Your task to perform on an android device: Check the weather Image 0: 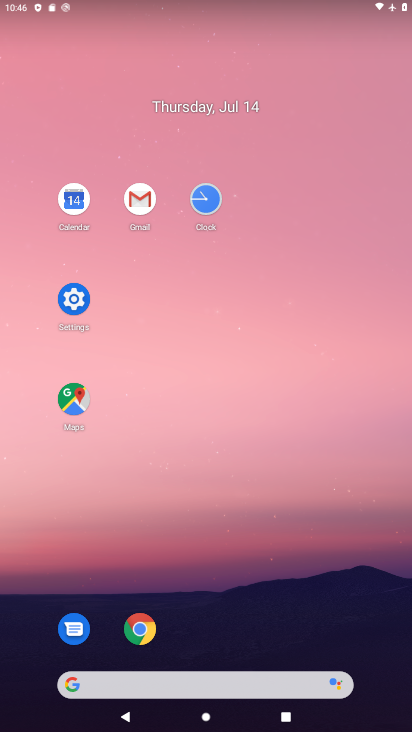
Step 0: click (142, 627)
Your task to perform on an android device: Check the weather Image 1: 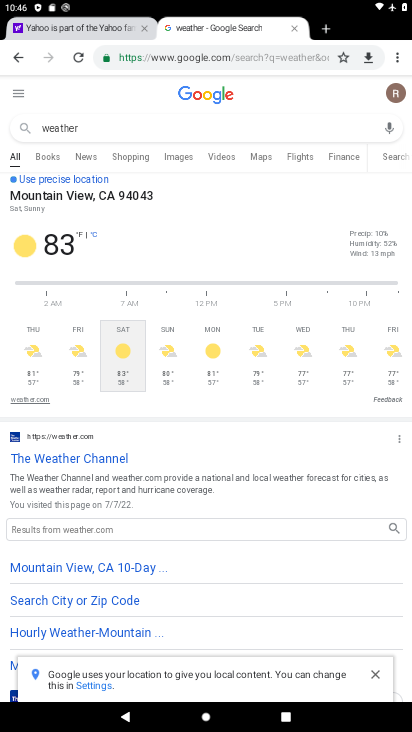
Step 1: click (35, 353)
Your task to perform on an android device: Check the weather Image 2: 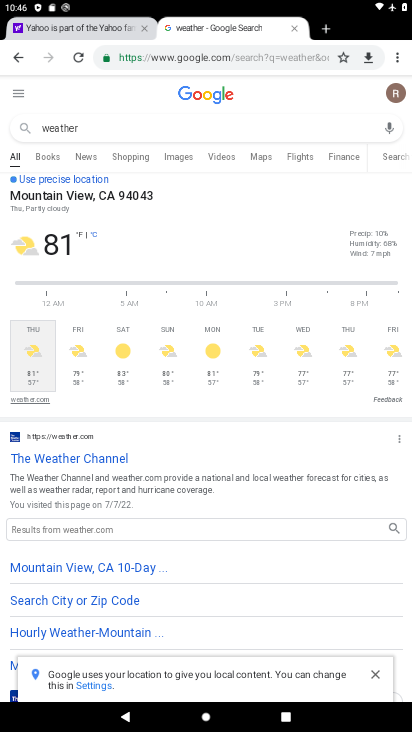
Step 2: task complete